Your task to perform on an android device: Show me the alarms in the clock app Image 0: 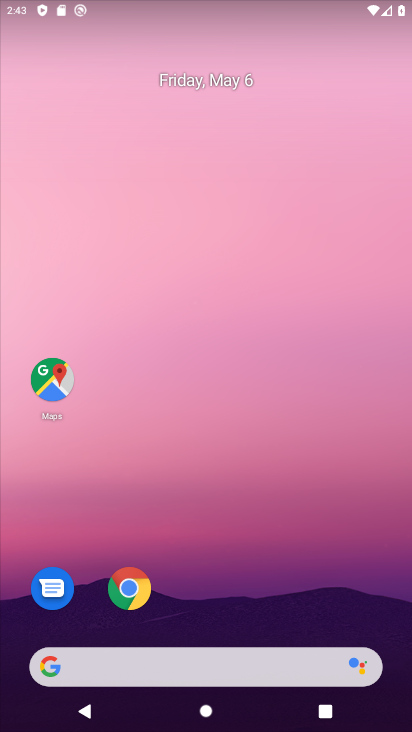
Step 0: drag from (266, 642) to (266, 167)
Your task to perform on an android device: Show me the alarms in the clock app Image 1: 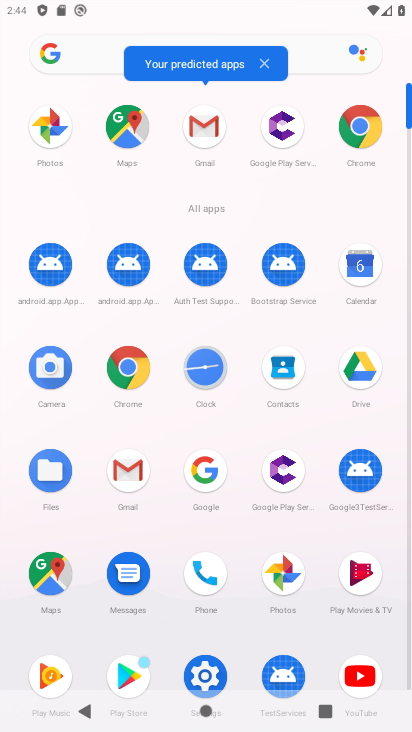
Step 1: click (210, 373)
Your task to perform on an android device: Show me the alarms in the clock app Image 2: 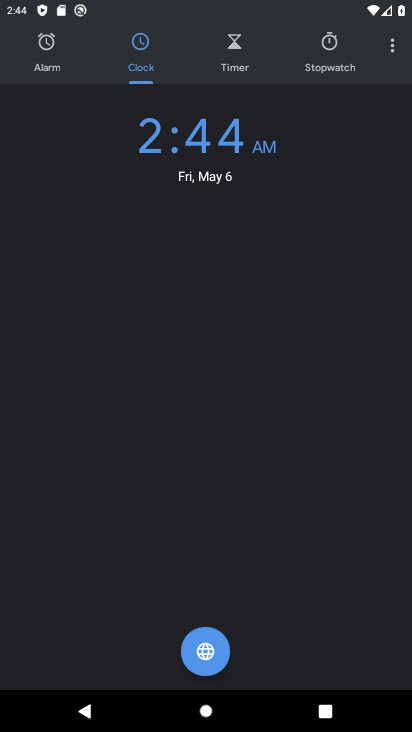
Step 2: click (49, 41)
Your task to perform on an android device: Show me the alarms in the clock app Image 3: 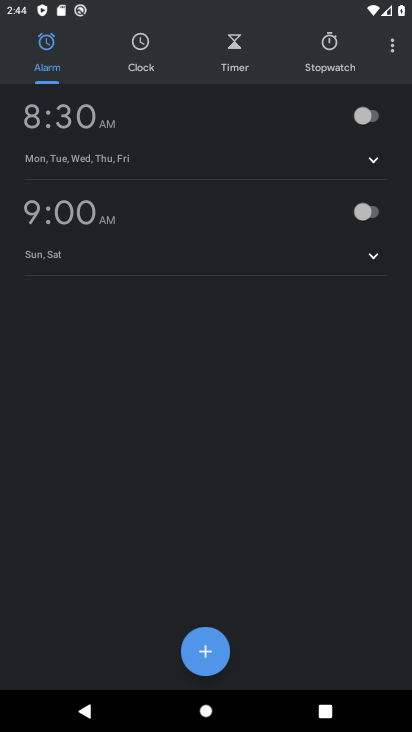
Step 3: task complete